Your task to perform on an android device: turn on sleep mode Image 0: 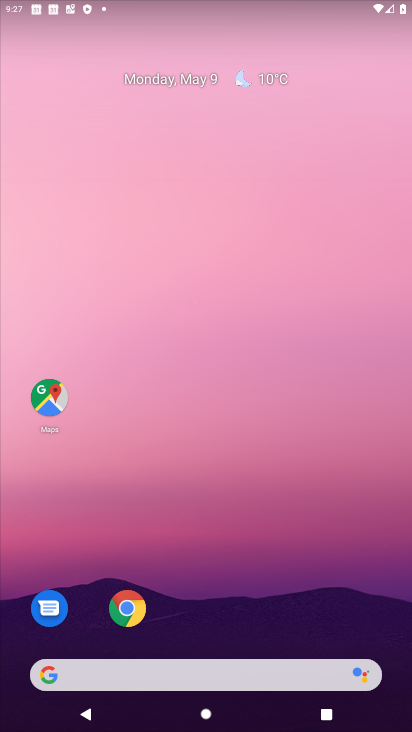
Step 0: drag from (301, 510) to (297, 186)
Your task to perform on an android device: turn on sleep mode Image 1: 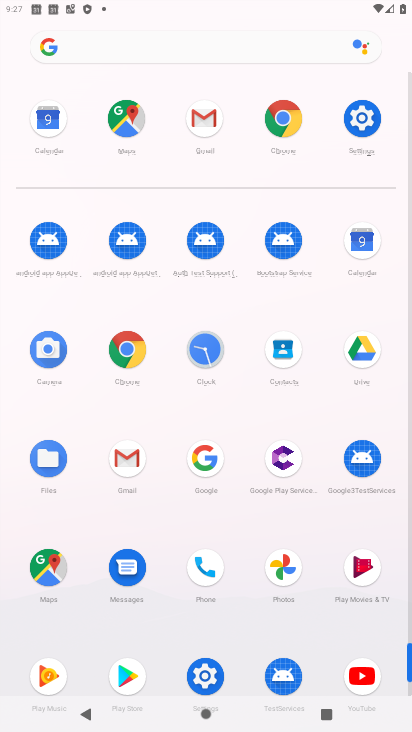
Step 1: click (341, 131)
Your task to perform on an android device: turn on sleep mode Image 2: 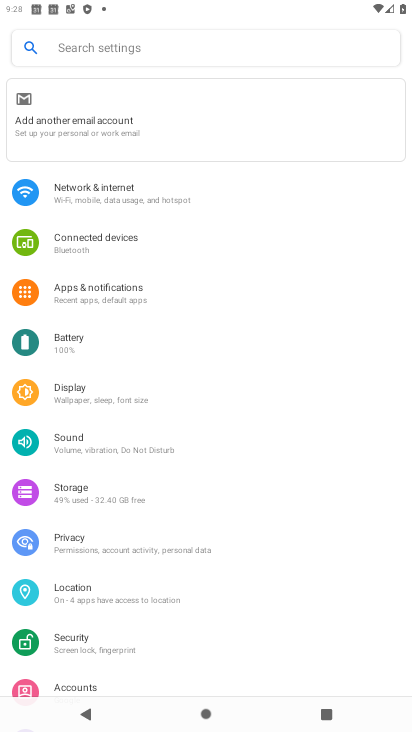
Step 2: click (110, 394)
Your task to perform on an android device: turn on sleep mode Image 3: 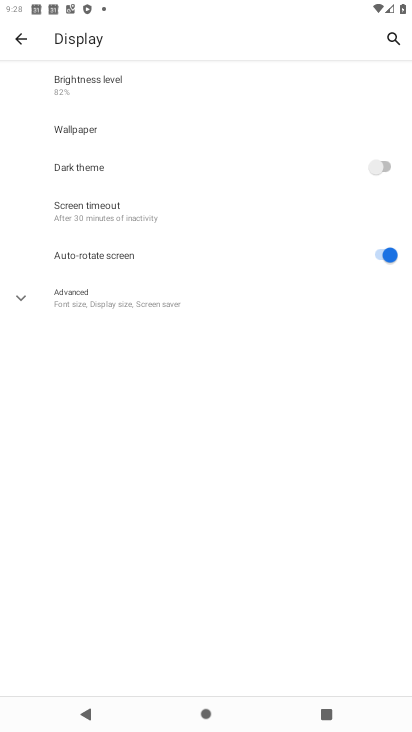
Step 3: click (68, 226)
Your task to perform on an android device: turn on sleep mode Image 4: 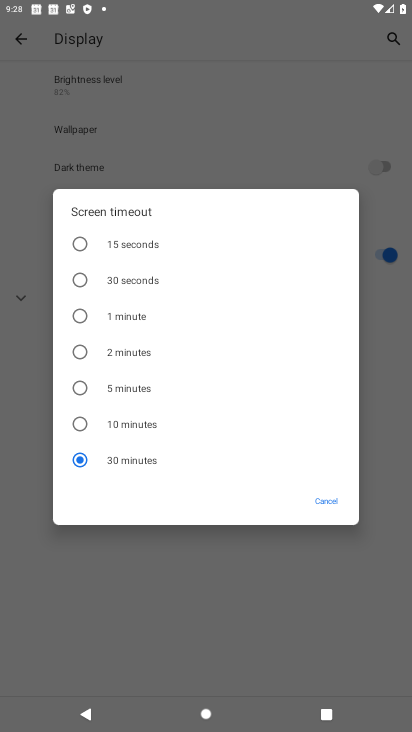
Step 4: task complete